Your task to perform on an android device: turn on bluetooth scan Image 0: 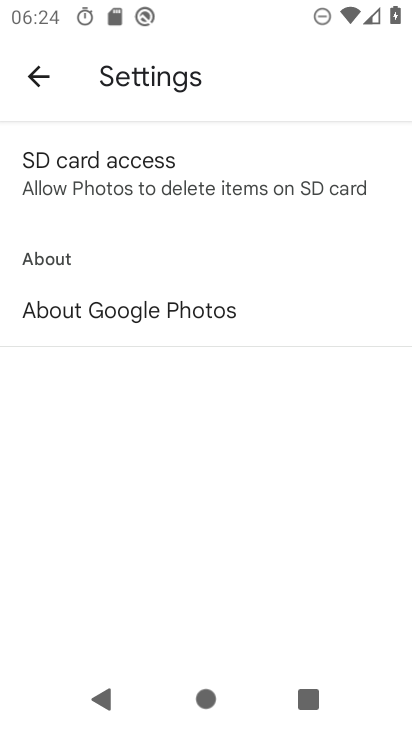
Step 0: press home button
Your task to perform on an android device: turn on bluetooth scan Image 1: 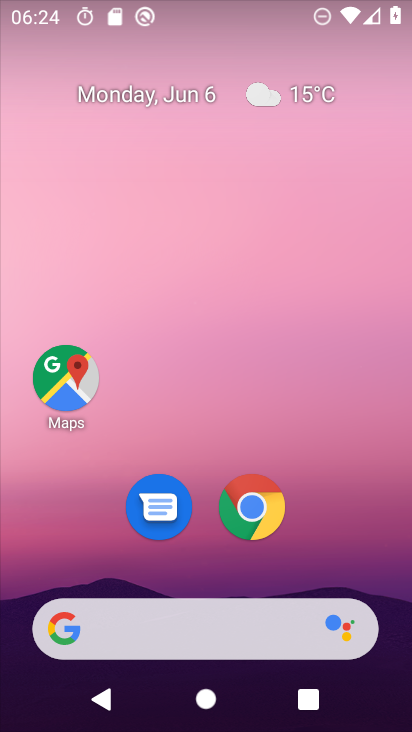
Step 1: drag from (224, 568) to (127, 6)
Your task to perform on an android device: turn on bluetooth scan Image 2: 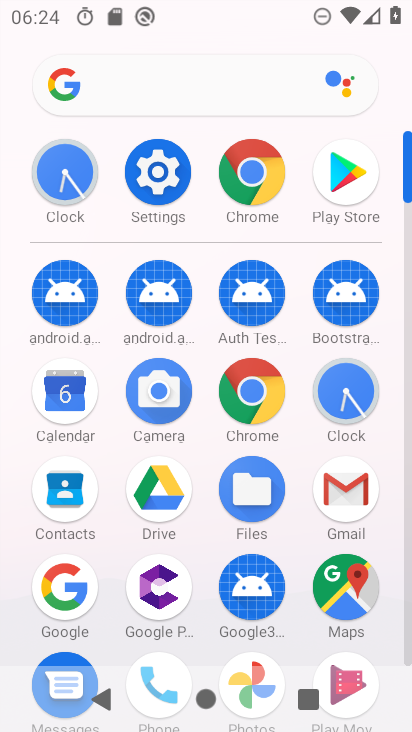
Step 2: click (159, 178)
Your task to perform on an android device: turn on bluetooth scan Image 3: 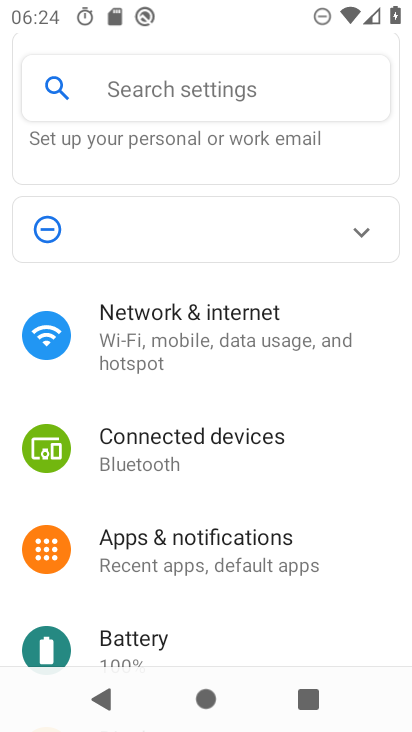
Step 3: drag from (191, 570) to (150, 33)
Your task to perform on an android device: turn on bluetooth scan Image 4: 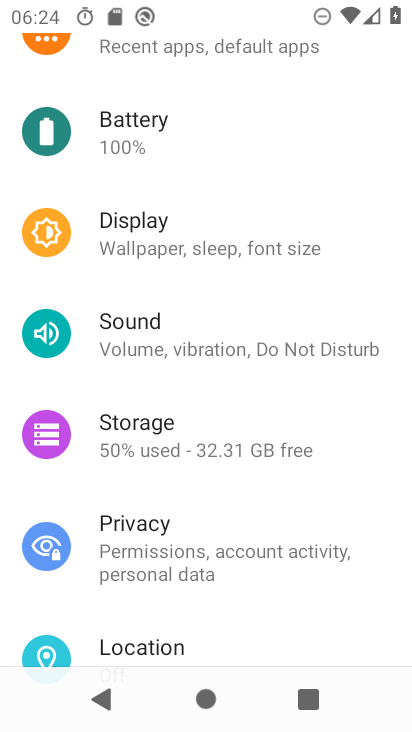
Step 4: drag from (141, 557) to (198, 80)
Your task to perform on an android device: turn on bluetooth scan Image 5: 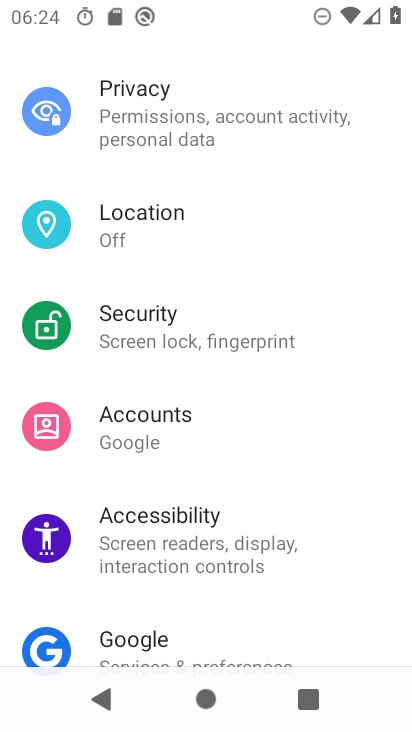
Step 5: click (151, 260)
Your task to perform on an android device: turn on bluetooth scan Image 6: 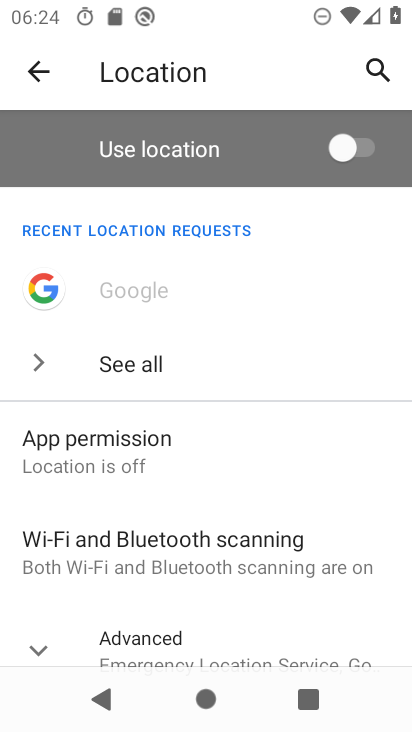
Step 6: click (107, 560)
Your task to perform on an android device: turn on bluetooth scan Image 7: 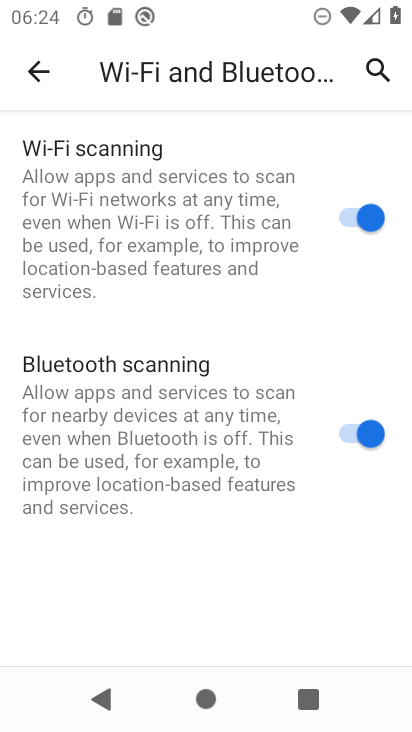
Step 7: task complete